Your task to perform on an android device: turn vacation reply on in the gmail app Image 0: 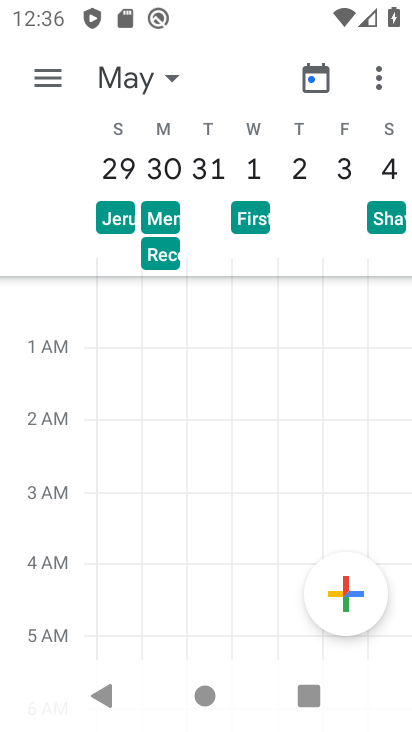
Step 0: press home button
Your task to perform on an android device: turn vacation reply on in the gmail app Image 1: 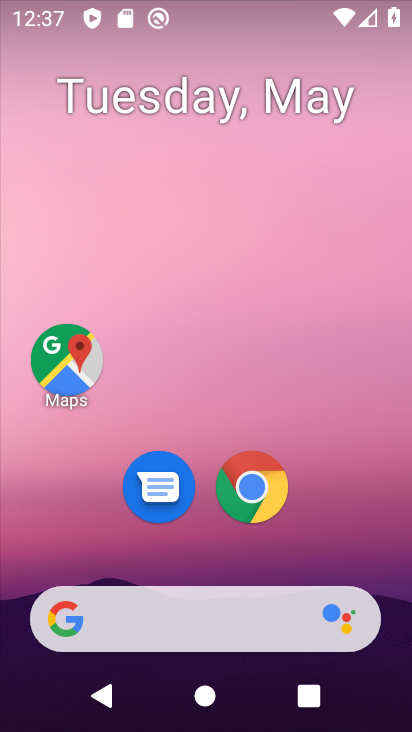
Step 1: drag from (325, 545) to (262, 162)
Your task to perform on an android device: turn vacation reply on in the gmail app Image 2: 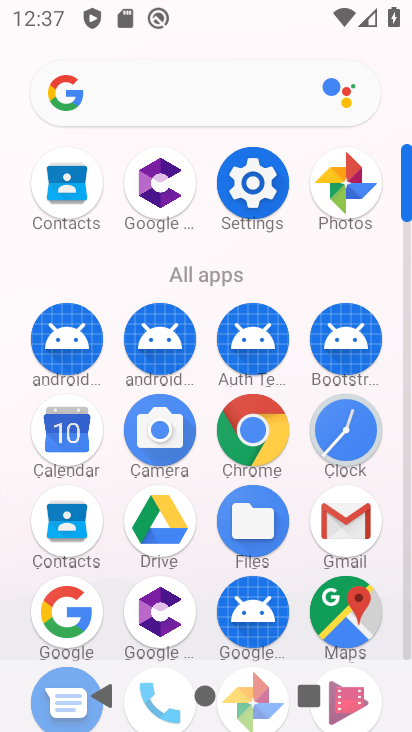
Step 2: click (356, 518)
Your task to perform on an android device: turn vacation reply on in the gmail app Image 3: 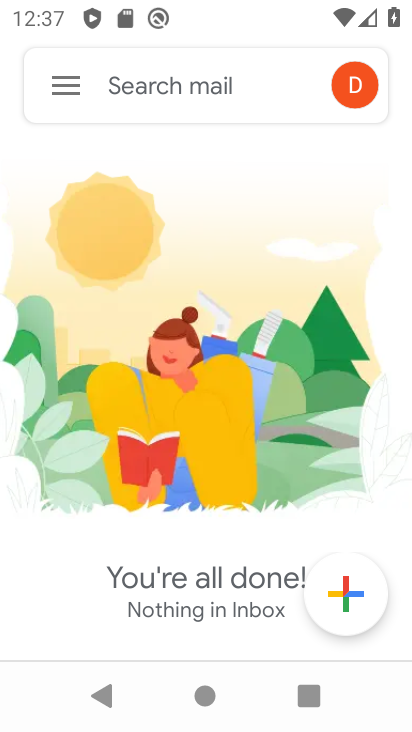
Step 3: click (74, 84)
Your task to perform on an android device: turn vacation reply on in the gmail app Image 4: 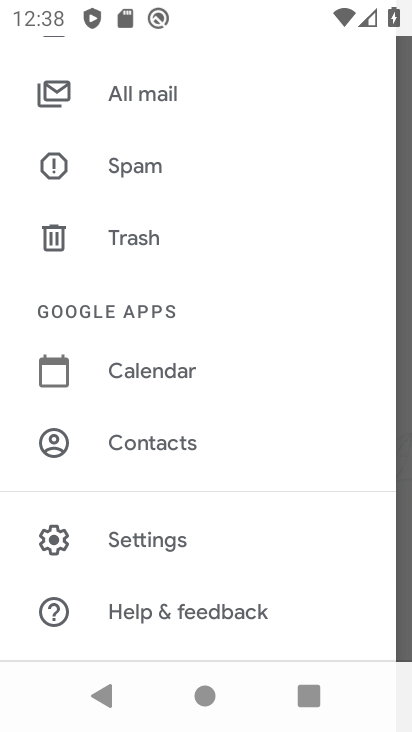
Step 4: click (187, 546)
Your task to perform on an android device: turn vacation reply on in the gmail app Image 5: 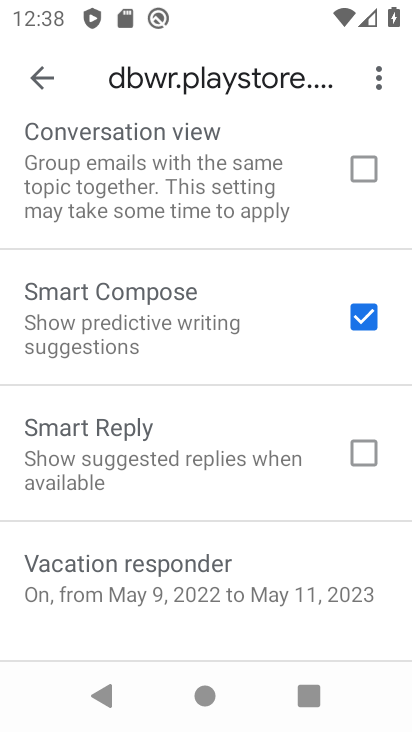
Step 5: click (175, 558)
Your task to perform on an android device: turn vacation reply on in the gmail app Image 6: 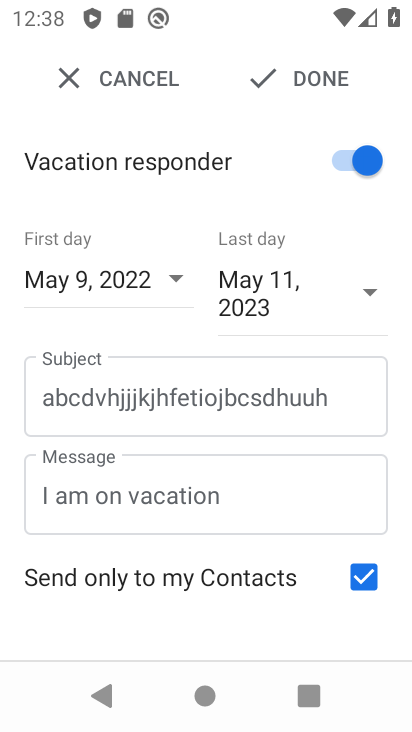
Step 6: click (313, 82)
Your task to perform on an android device: turn vacation reply on in the gmail app Image 7: 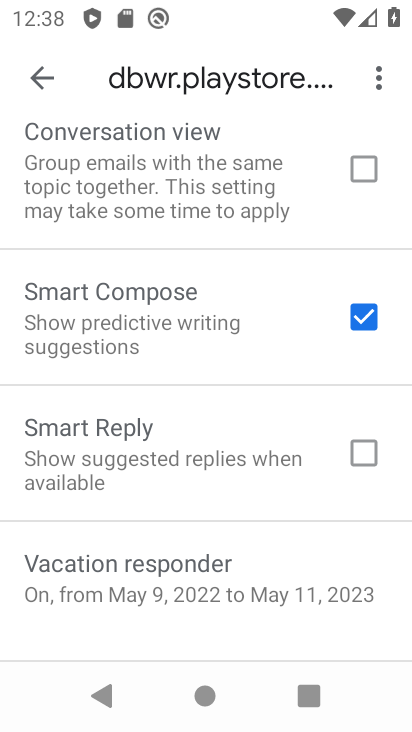
Step 7: task complete